Your task to perform on an android device: Open eBay Image 0: 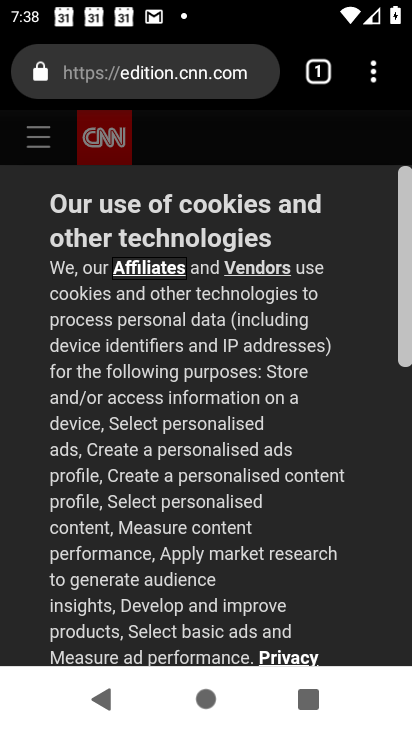
Step 0: click (217, 86)
Your task to perform on an android device: Open eBay Image 1: 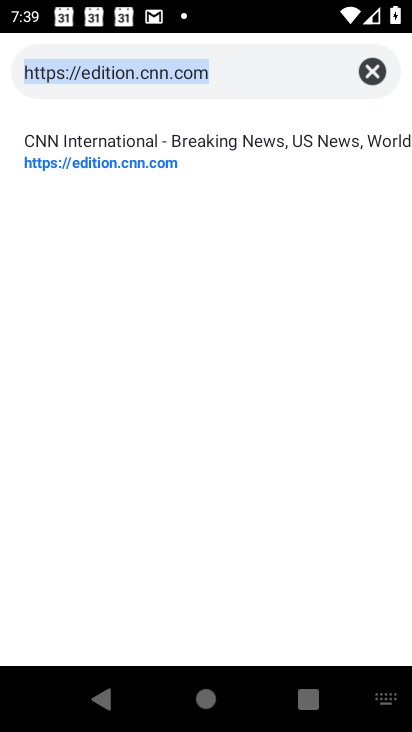
Step 1: type "ebay.com"
Your task to perform on an android device: Open eBay Image 2: 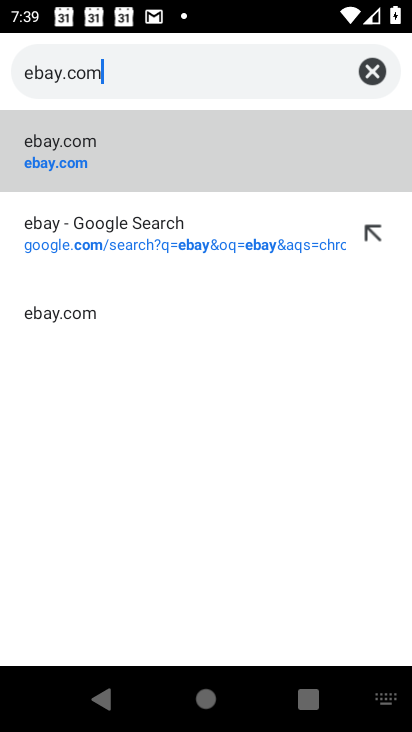
Step 2: click (86, 156)
Your task to perform on an android device: Open eBay Image 3: 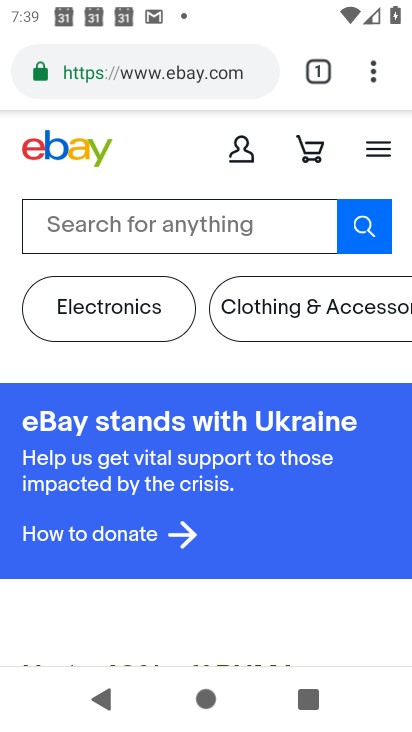
Step 3: task complete